Your task to perform on an android device: toggle improve location accuracy Image 0: 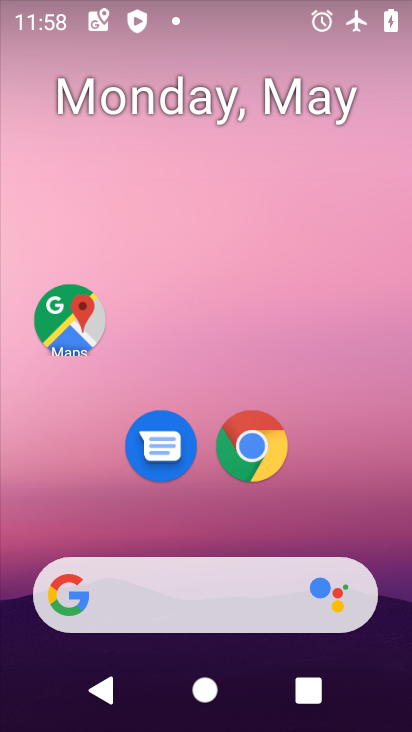
Step 0: drag from (290, 434) to (302, 194)
Your task to perform on an android device: toggle improve location accuracy Image 1: 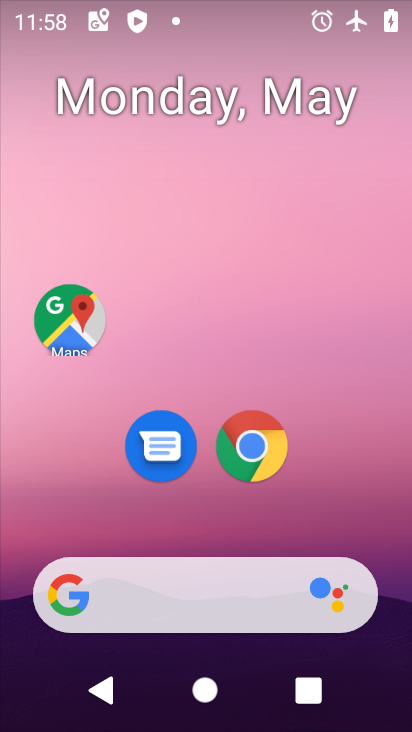
Step 1: drag from (319, 419) to (314, 286)
Your task to perform on an android device: toggle improve location accuracy Image 2: 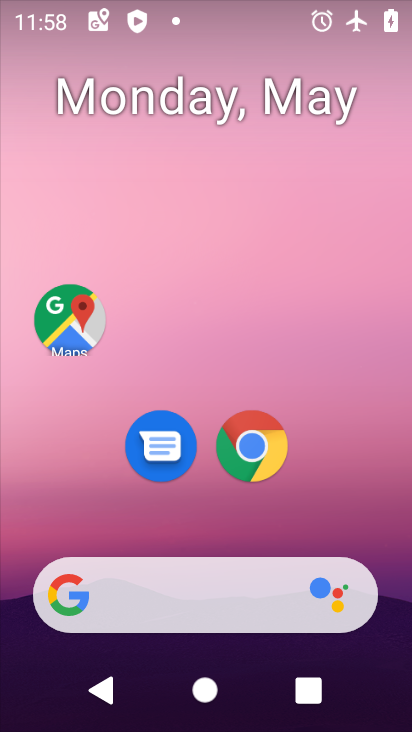
Step 2: drag from (312, 575) to (290, 176)
Your task to perform on an android device: toggle improve location accuracy Image 3: 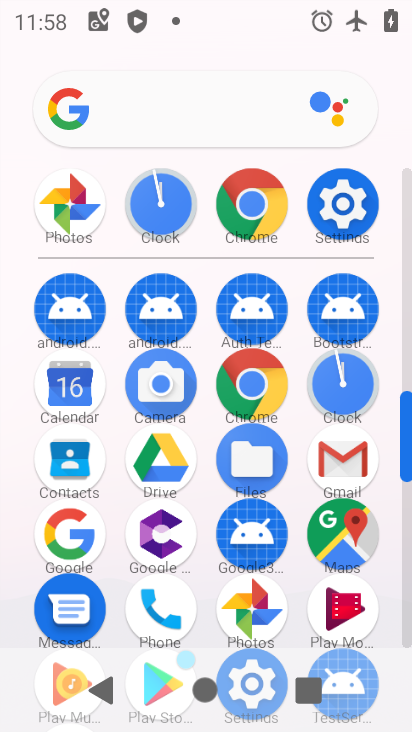
Step 3: click (364, 183)
Your task to perform on an android device: toggle improve location accuracy Image 4: 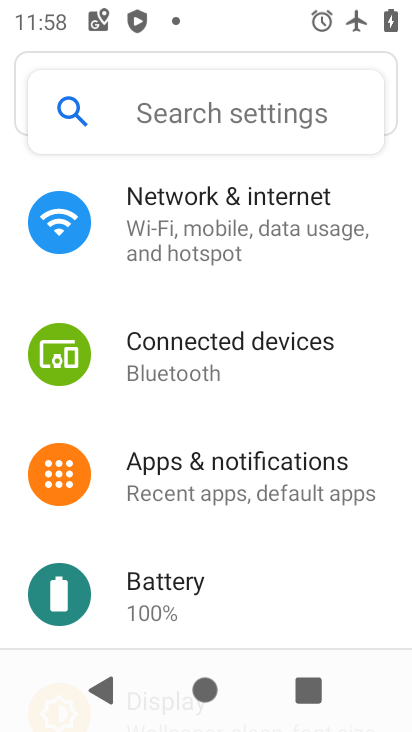
Step 4: drag from (225, 620) to (283, 216)
Your task to perform on an android device: toggle improve location accuracy Image 5: 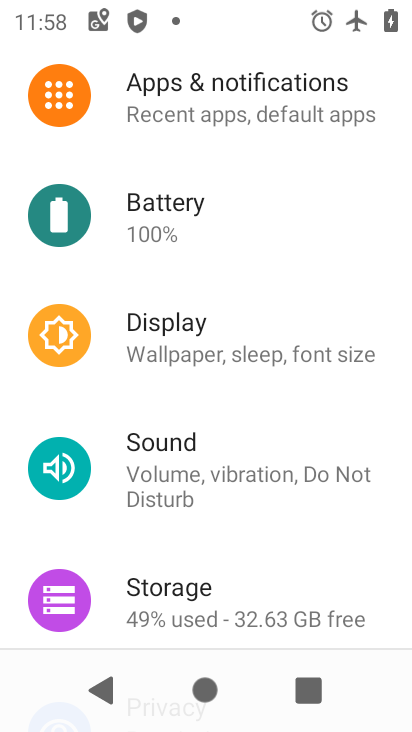
Step 5: drag from (172, 576) to (217, 224)
Your task to perform on an android device: toggle improve location accuracy Image 6: 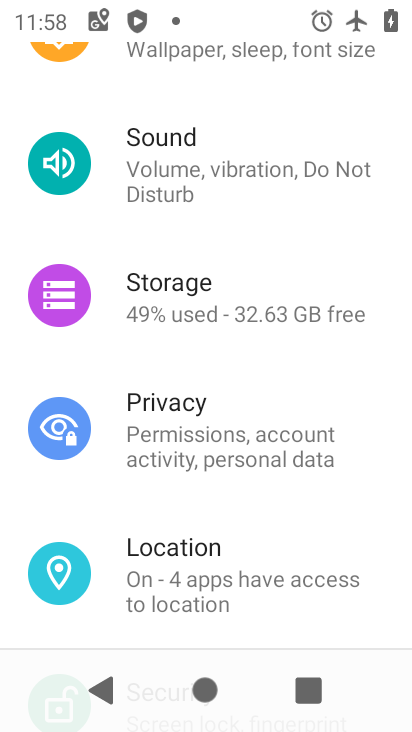
Step 6: drag from (143, 543) to (165, 378)
Your task to perform on an android device: toggle improve location accuracy Image 7: 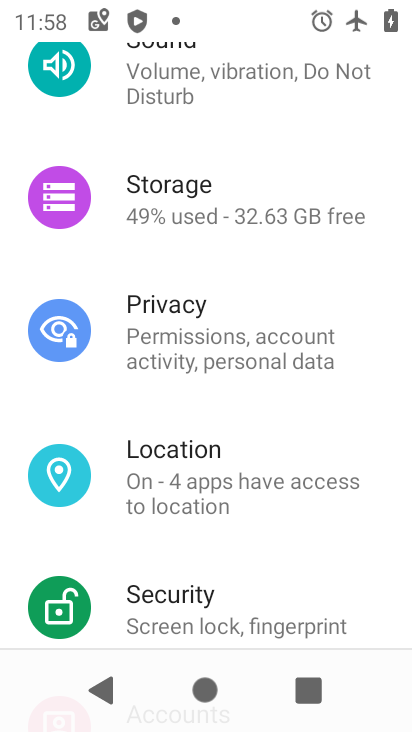
Step 7: click (119, 471)
Your task to perform on an android device: toggle improve location accuracy Image 8: 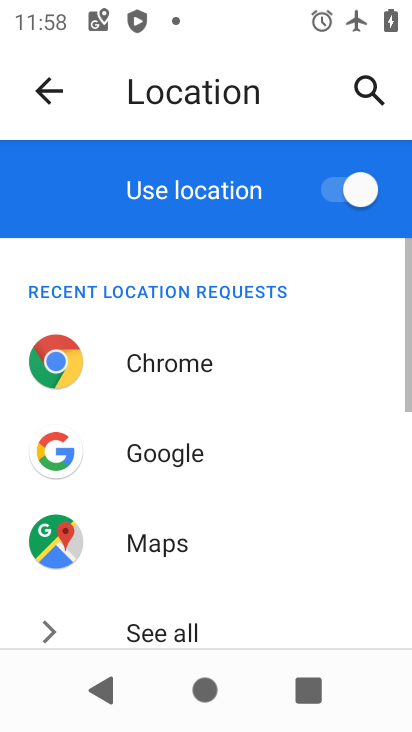
Step 8: drag from (149, 553) to (210, 246)
Your task to perform on an android device: toggle improve location accuracy Image 9: 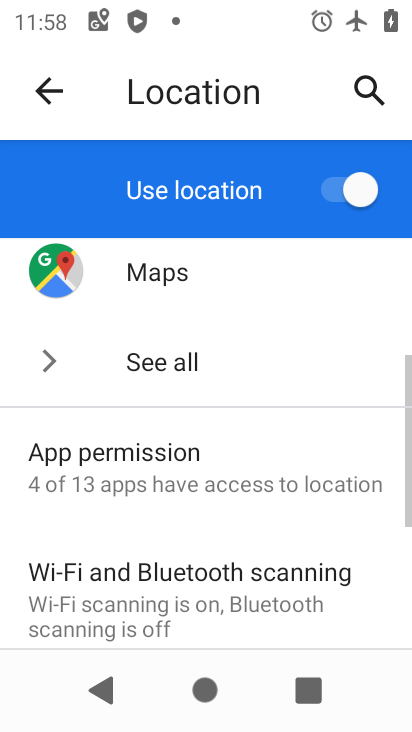
Step 9: drag from (174, 551) to (195, 413)
Your task to perform on an android device: toggle improve location accuracy Image 10: 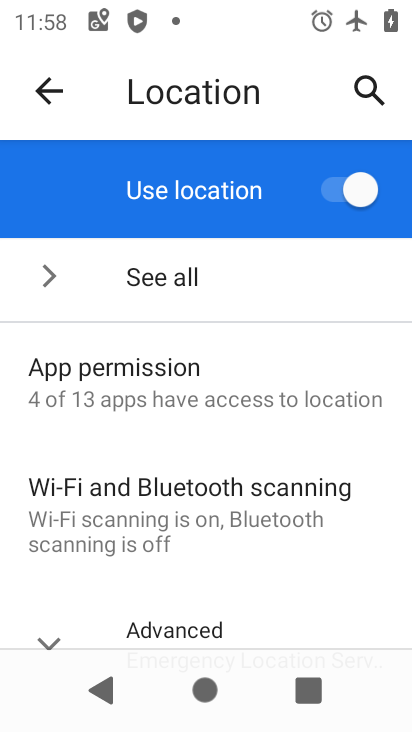
Step 10: drag from (184, 566) to (248, 176)
Your task to perform on an android device: toggle improve location accuracy Image 11: 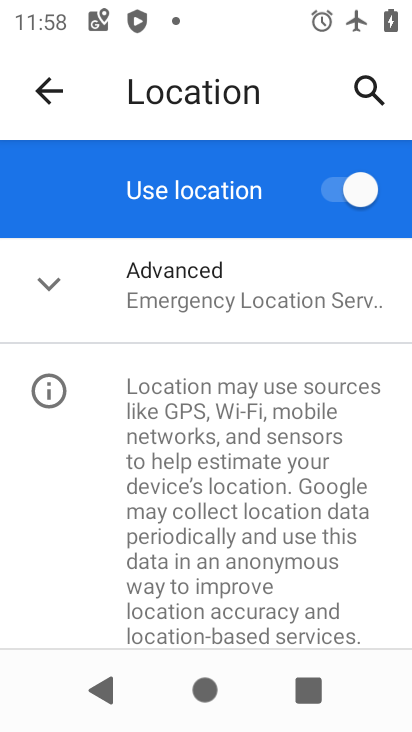
Step 11: click (191, 312)
Your task to perform on an android device: toggle improve location accuracy Image 12: 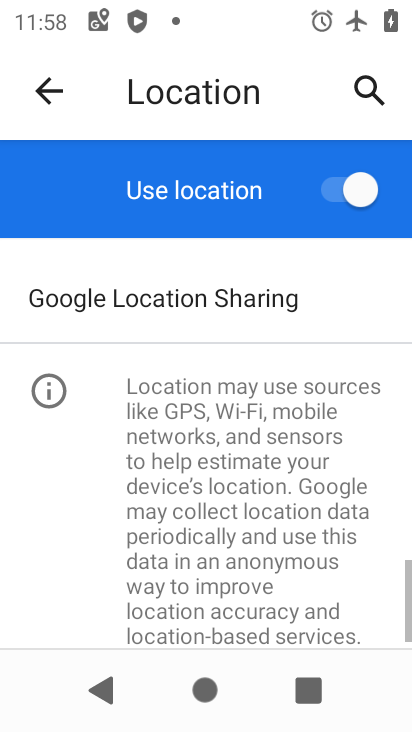
Step 12: drag from (189, 292) to (199, 578)
Your task to perform on an android device: toggle improve location accuracy Image 13: 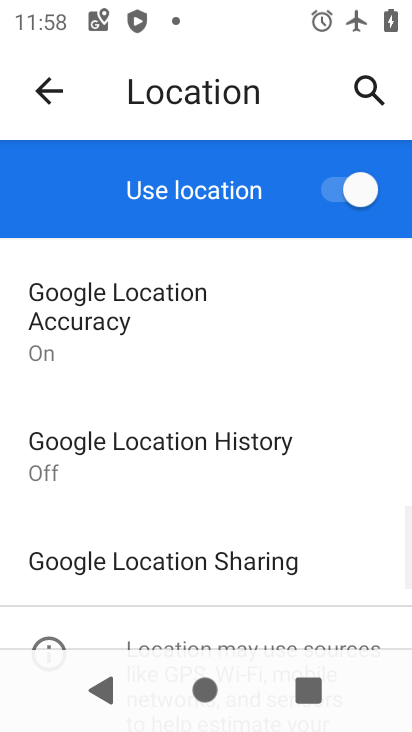
Step 13: click (159, 318)
Your task to perform on an android device: toggle improve location accuracy Image 14: 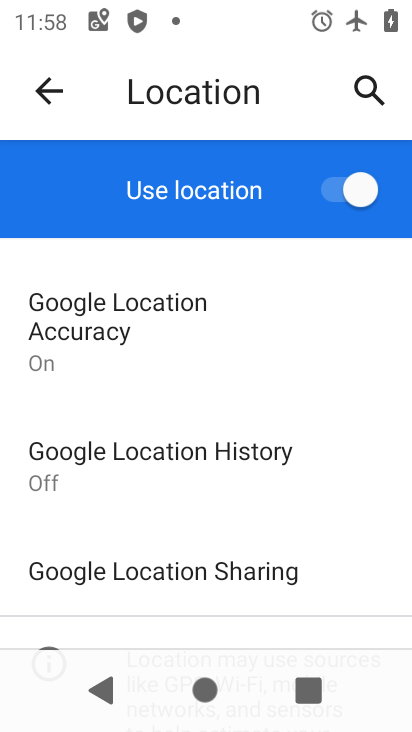
Step 14: click (165, 346)
Your task to perform on an android device: toggle improve location accuracy Image 15: 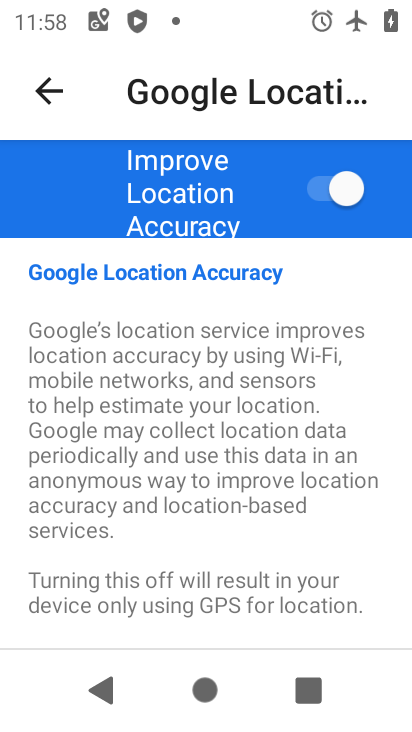
Step 15: click (338, 183)
Your task to perform on an android device: toggle improve location accuracy Image 16: 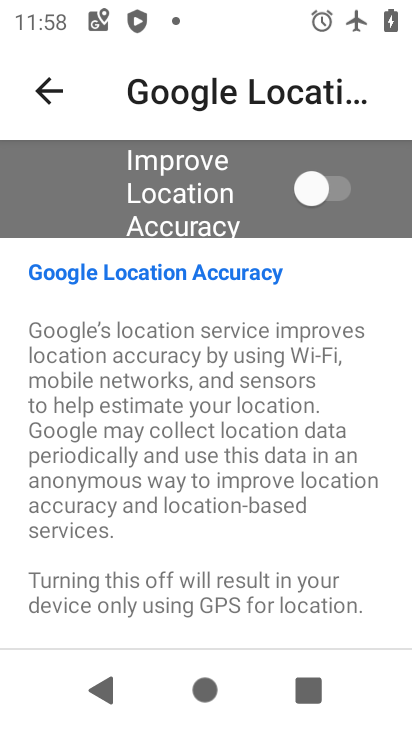
Step 16: task complete